Your task to perform on an android device: check battery use Image 0: 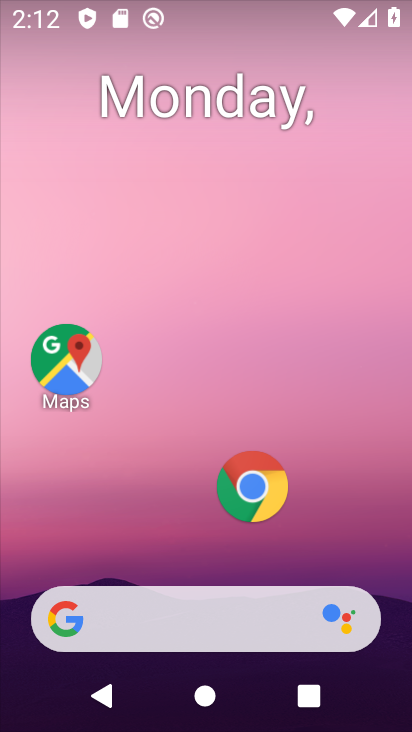
Step 0: drag from (199, 550) to (187, 49)
Your task to perform on an android device: check battery use Image 1: 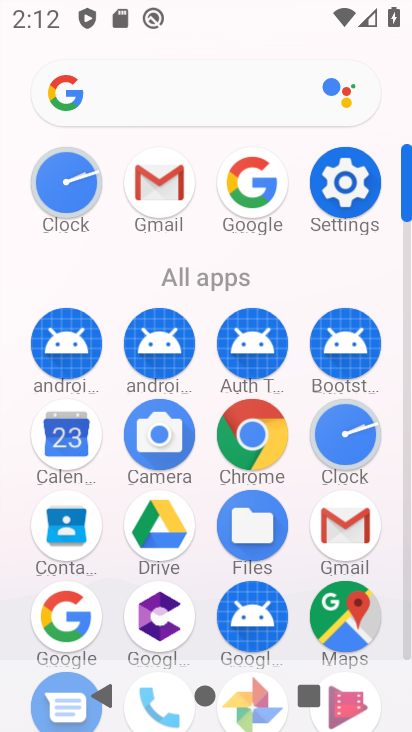
Step 1: click (340, 191)
Your task to perform on an android device: check battery use Image 2: 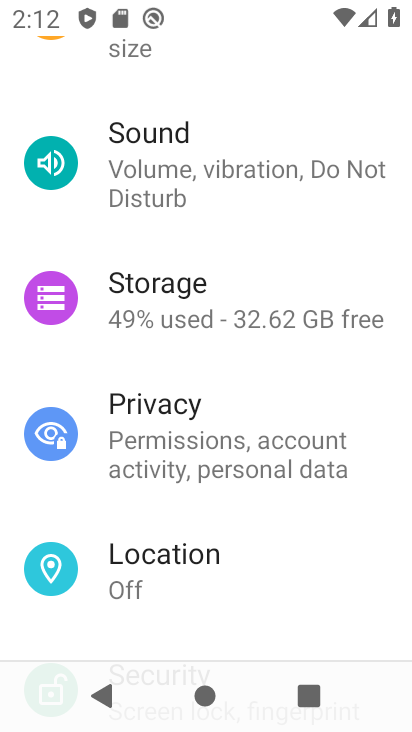
Step 2: drag from (229, 334) to (250, 513)
Your task to perform on an android device: check battery use Image 3: 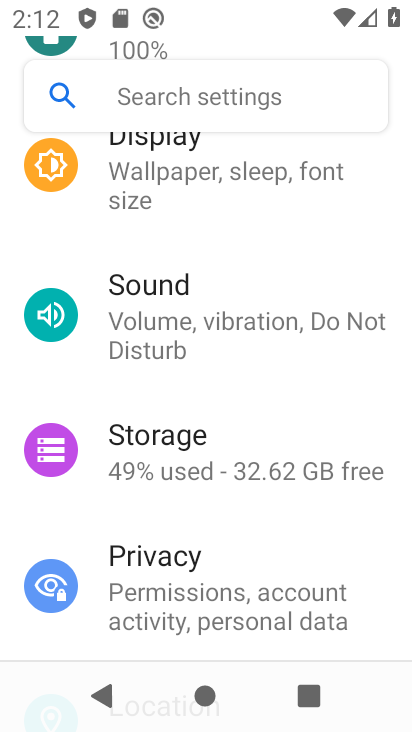
Step 3: drag from (231, 258) to (261, 527)
Your task to perform on an android device: check battery use Image 4: 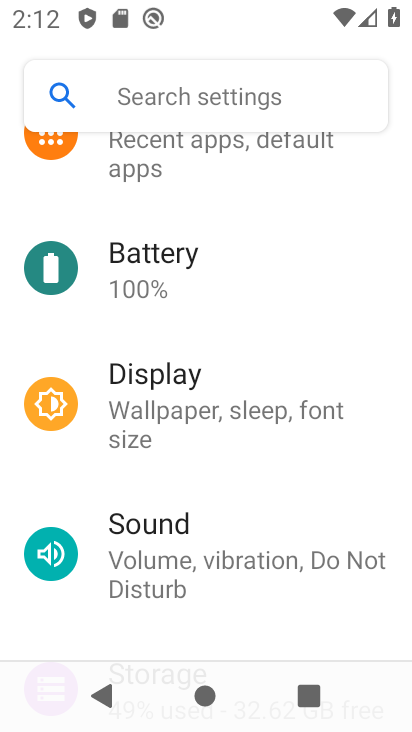
Step 4: click (166, 254)
Your task to perform on an android device: check battery use Image 5: 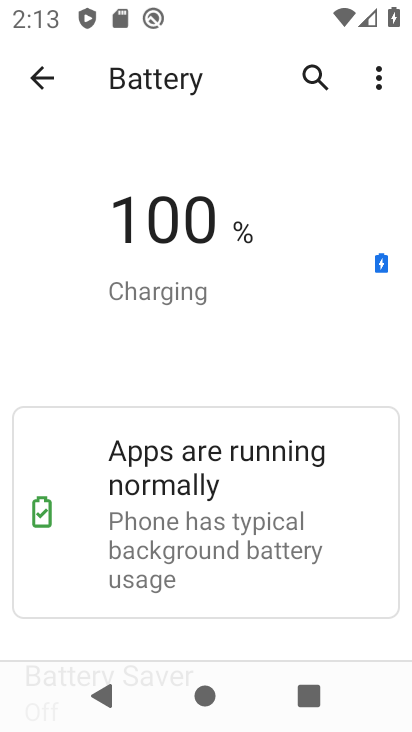
Step 5: drag from (214, 573) to (244, 284)
Your task to perform on an android device: check battery use Image 6: 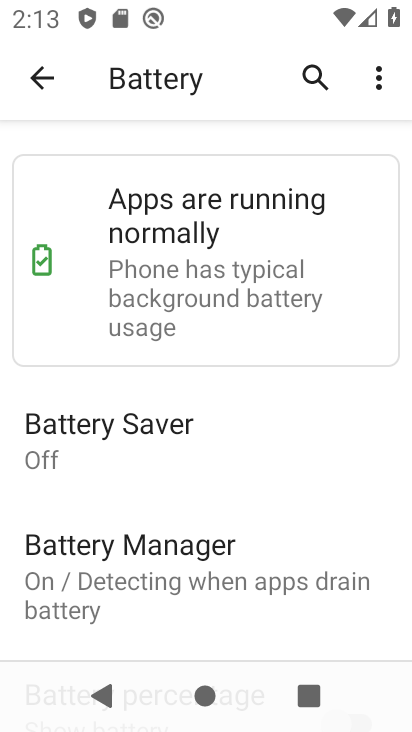
Step 6: click (373, 71)
Your task to perform on an android device: check battery use Image 7: 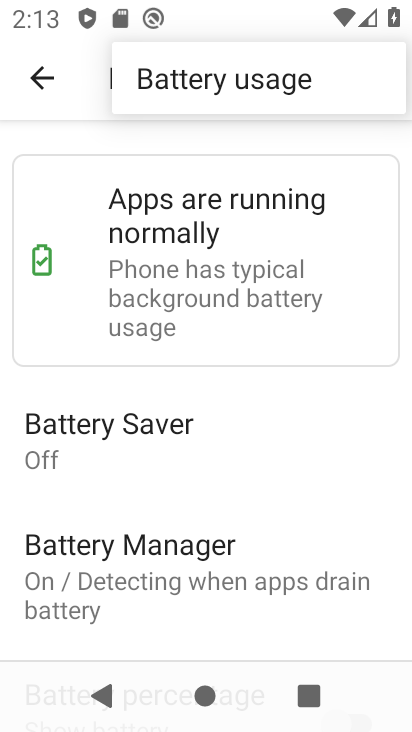
Step 7: click (250, 72)
Your task to perform on an android device: check battery use Image 8: 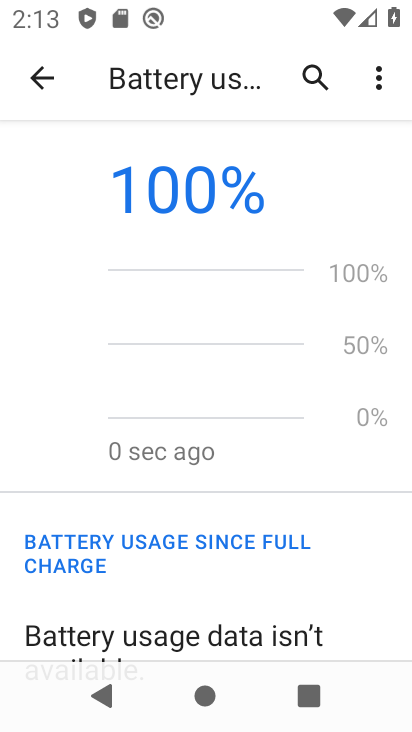
Step 8: task complete